Your task to perform on an android device: change the clock display to digital Image 0: 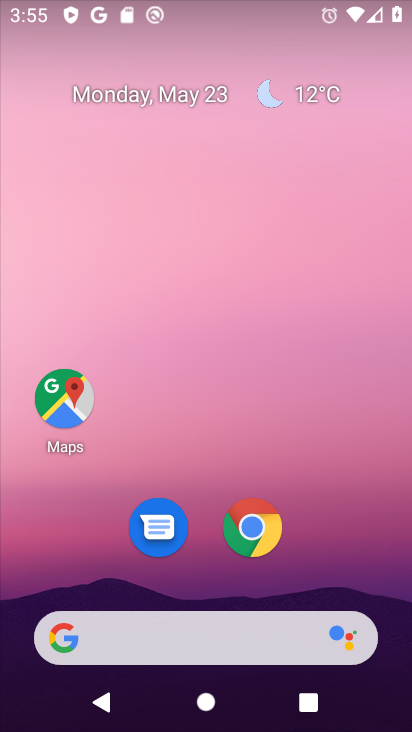
Step 0: drag from (210, 583) to (255, 58)
Your task to perform on an android device: change the clock display to digital Image 1: 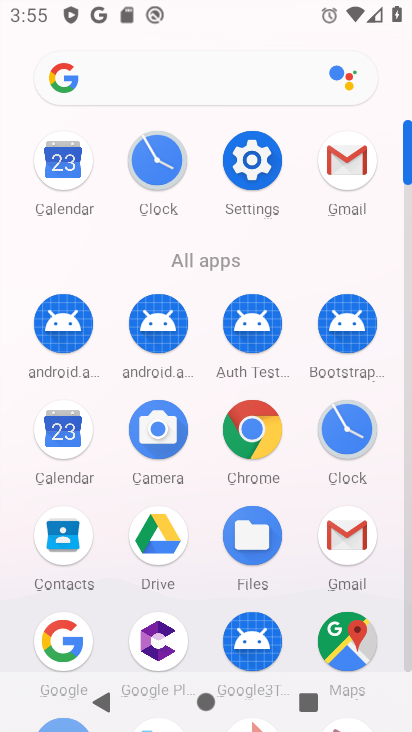
Step 1: click (343, 419)
Your task to perform on an android device: change the clock display to digital Image 2: 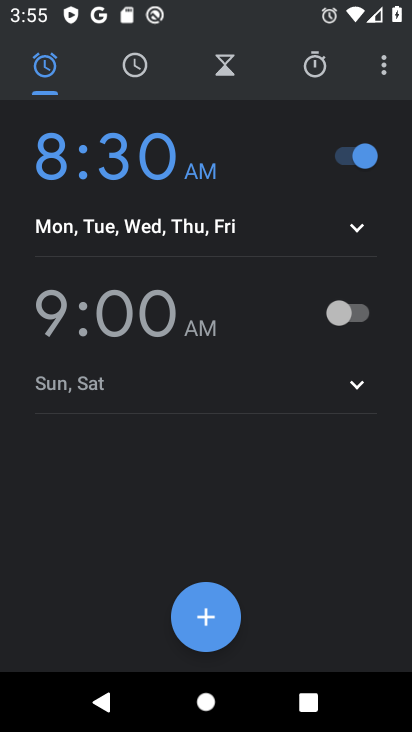
Step 2: click (374, 62)
Your task to perform on an android device: change the clock display to digital Image 3: 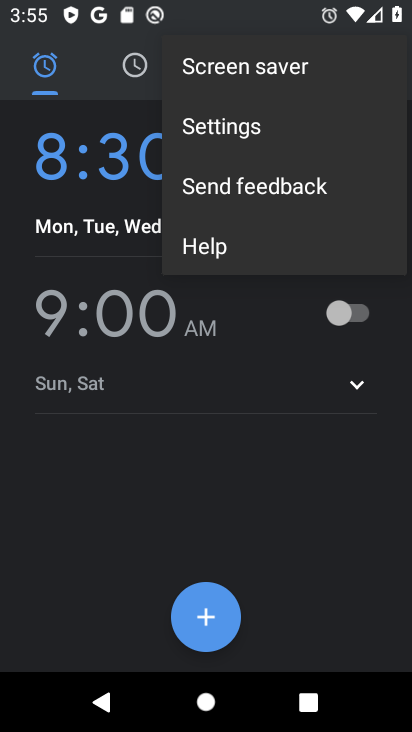
Step 3: click (275, 127)
Your task to perform on an android device: change the clock display to digital Image 4: 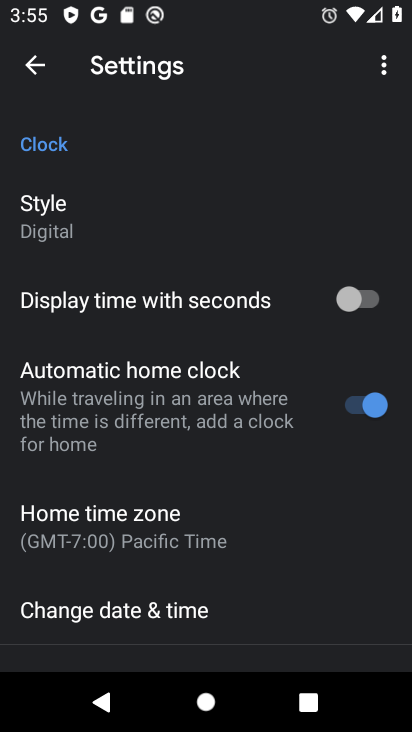
Step 4: click (91, 216)
Your task to perform on an android device: change the clock display to digital Image 5: 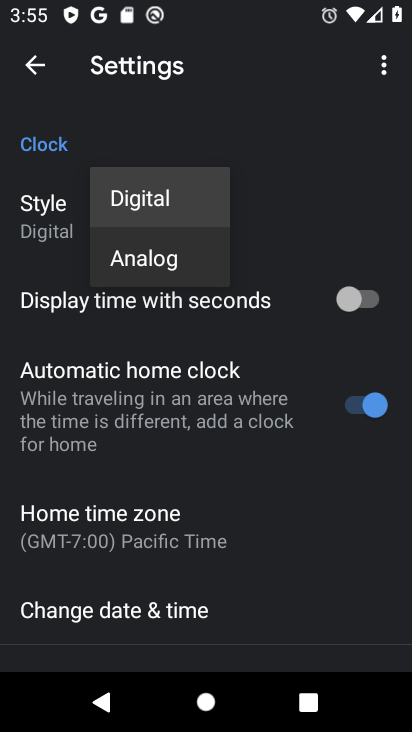
Step 5: click (173, 200)
Your task to perform on an android device: change the clock display to digital Image 6: 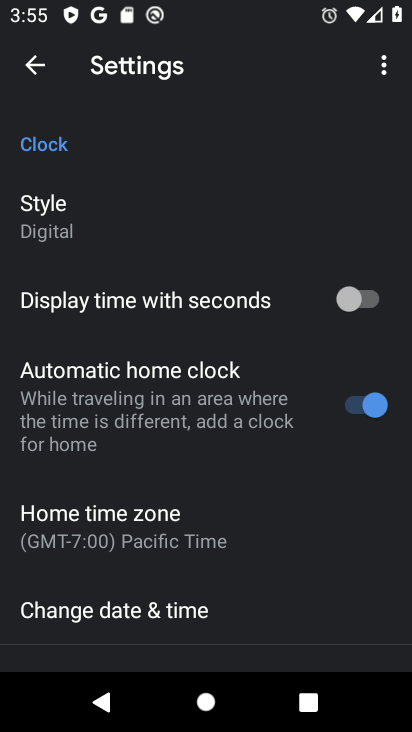
Step 6: task complete